Your task to perform on an android device: What's the weather? Image 0: 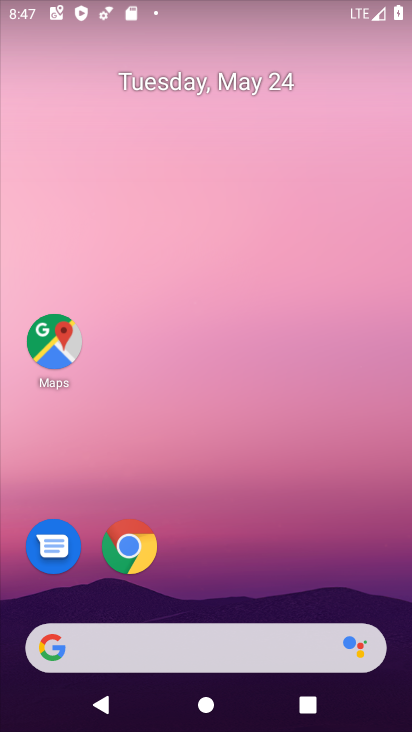
Step 0: click (196, 648)
Your task to perform on an android device: What's the weather? Image 1: 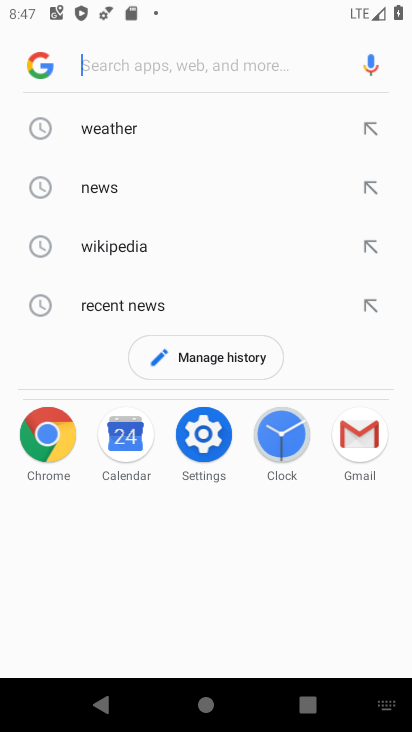
Step 1: click (110, 128)
Your task to perform on an android device: What's the weather? Image 2: 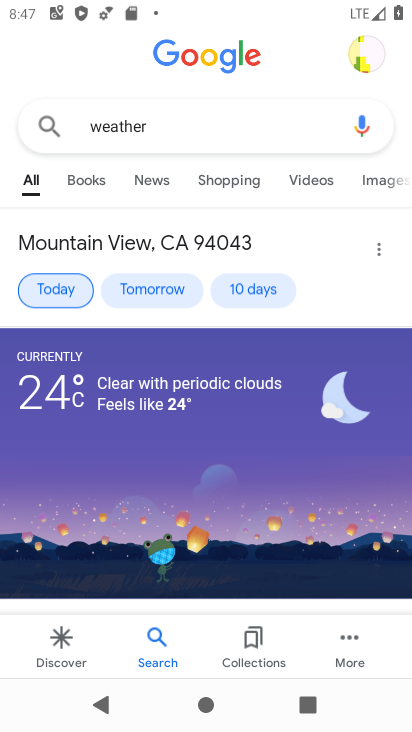
Step 2: click (56, 282)
Your task to perform on an android device: What's the weather? Image 3: 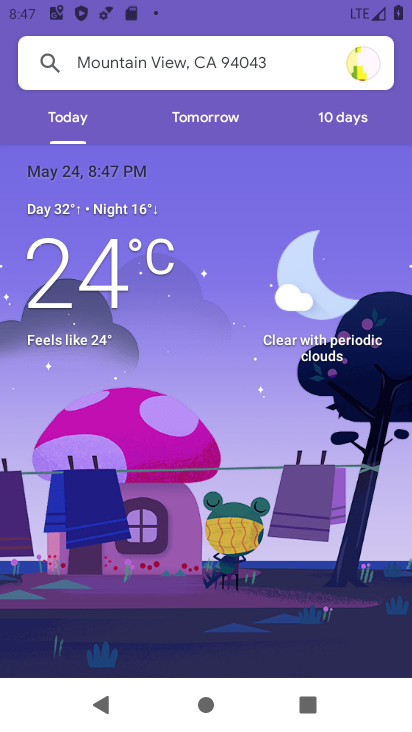
Step 3: task complete